Your task to perform on an android device: stop showing notifications on the lock screen Image 0: 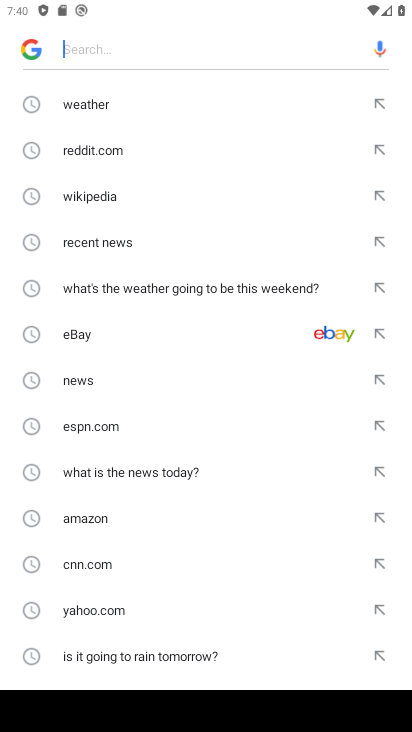
Step 0: press back button
Your task to perform on an android device: stop showing notifications on the lock screen Image 1: 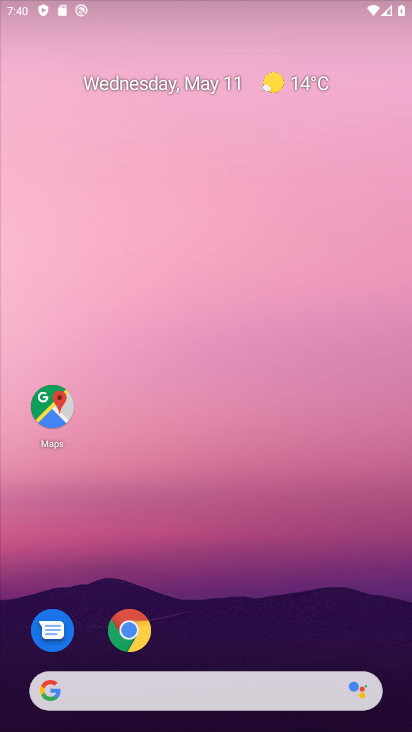
Step 1: drag from (298, 660) to (212, 78)
Your task to perform on an android device: stop showing notifications on the lock screen Image 2: 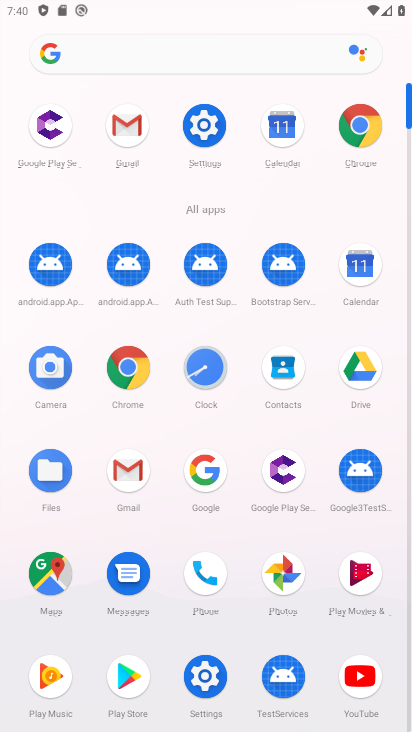
Step 2: click (211, 123)
Your task to perform on an android device: stop showing notifications on the lock screen Image 3: 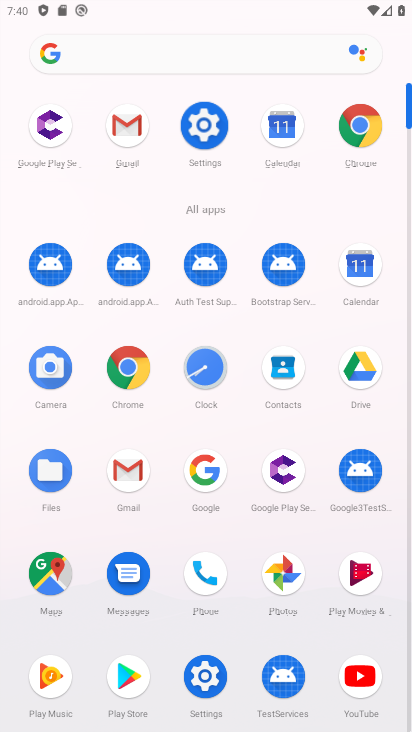
Step 3: click (211, 123)
Your task to perform on an android device: stop showing notifications on the lock screen Image 4: 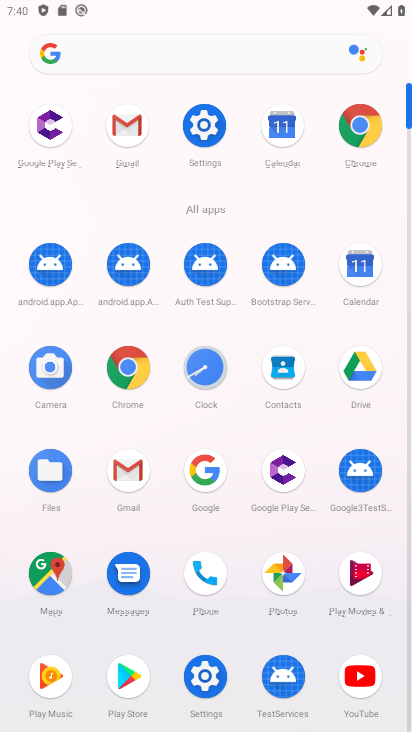
Step 4: click (199, 132)
Your task to perform on an android device: stop showing notifications on the lock screen Image 5: 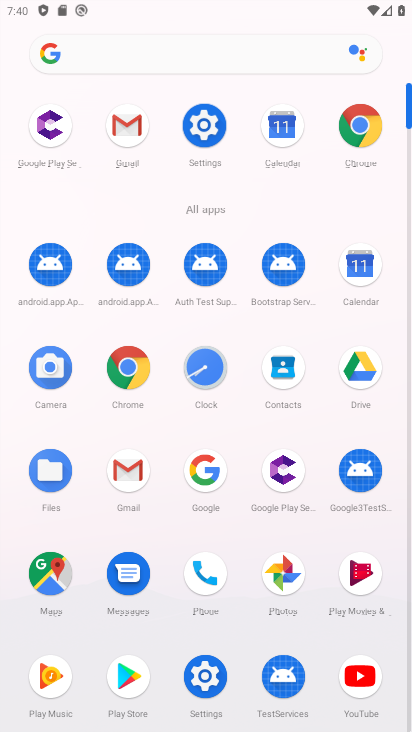
Step 5: click (199, 132)
Your task to perform on an android device: stop showing notifications on the lock screen Image 6: 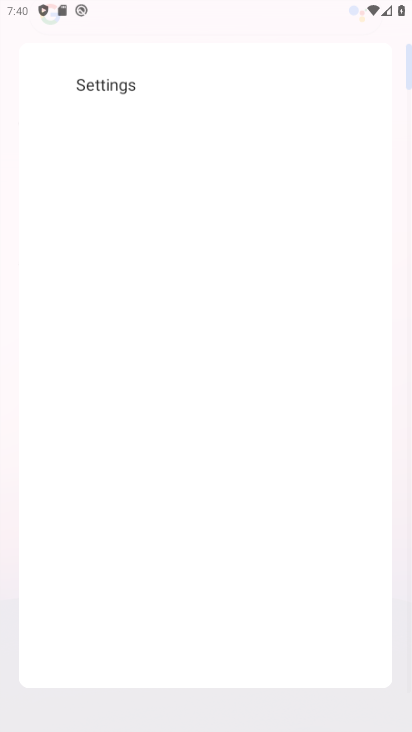
Step 6: click (198, 131)
Your task to perform on an android device: stop showing notifications on the lock screen Image 7: 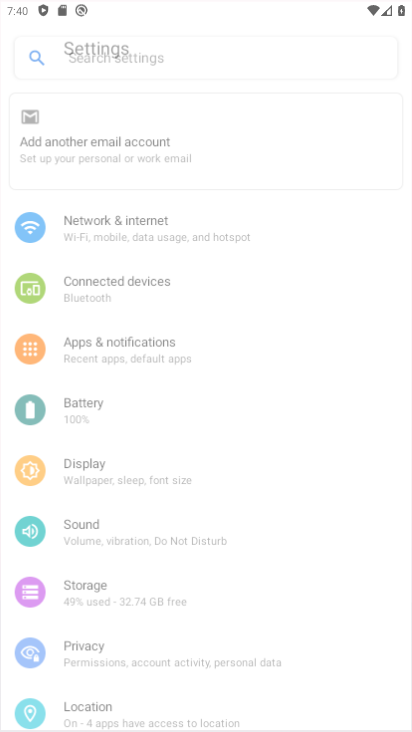
Step 7: click (198, 131)
Your task to perform on an android device: stop showing notifications on the lock screen Image 8: 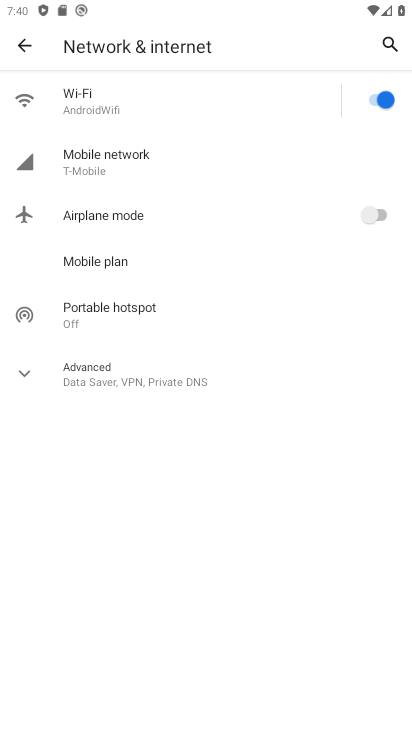
Step 8: click (15, 44)
Your task to perform on an android device: stop showing notifications on the lock screen Image 9: 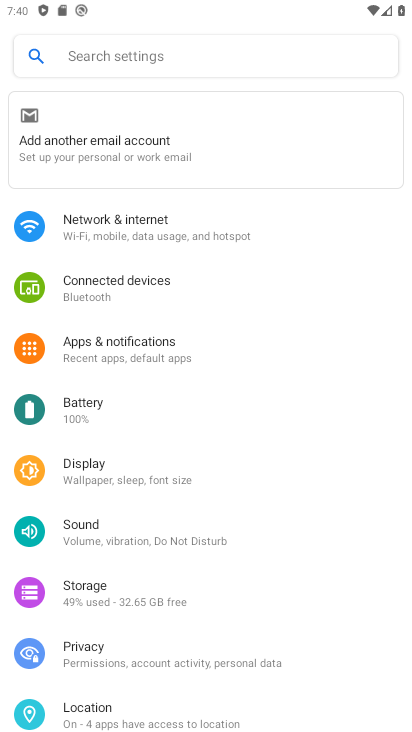
Step 9: click (124, 332)
Your task to perform on an android device: stop showing notifications on the lock screen Image 10: 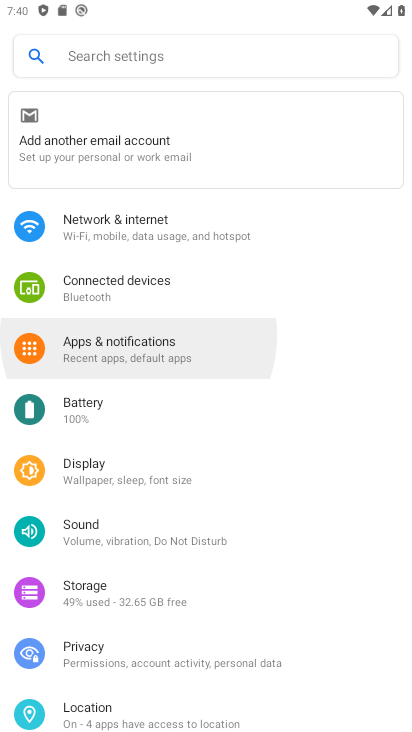
Step 10: click (125, 336)
Your task to perform on an android device: stop showing notifications on the lock screen Image 11: 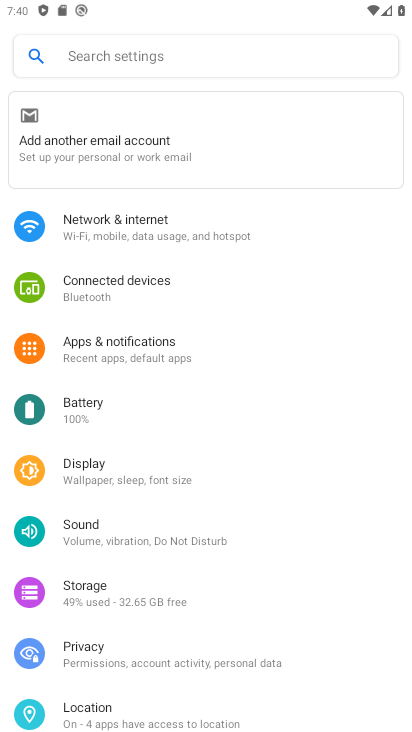
Step 11: click (135, 357)
Your task to perform on an android device: stop showing notifications on the lock screen Image 12: 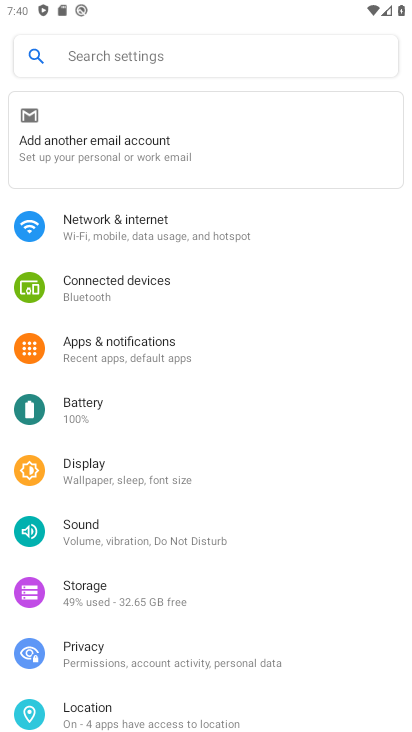
Step 12: click (135, 359)
Your task to perform on an android device: stop showing notifications on the lock screen Image 13: 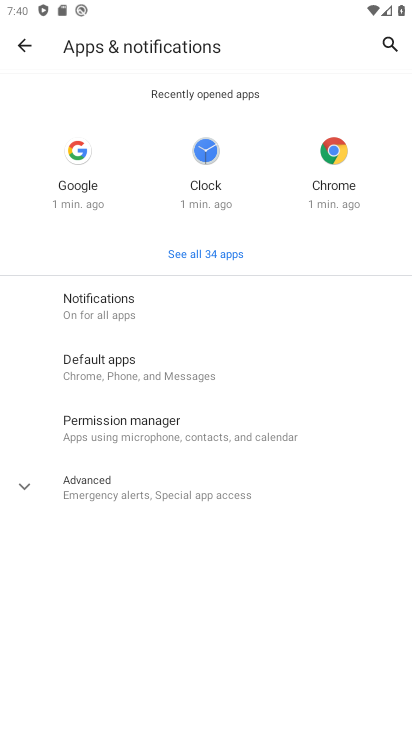
Step 13: click (98, 302)
Your task to perform on an android device: stop showing notifications on the lock screen Image 14: 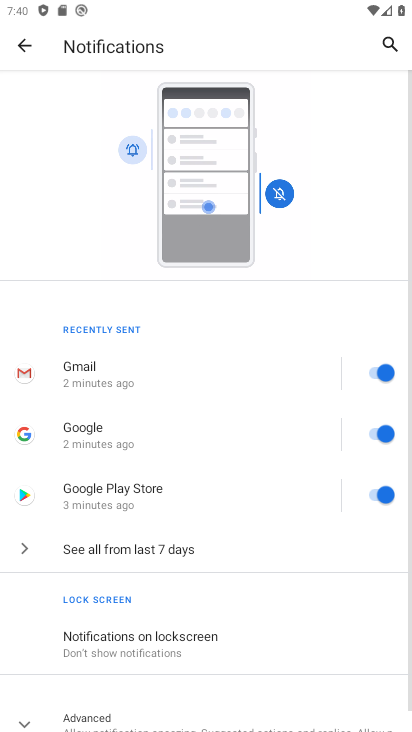
Step 14: drag from (305, 620) to (339, 256)
Your task to perform on an android device: stop showing notifications on the lock screen Image 15: 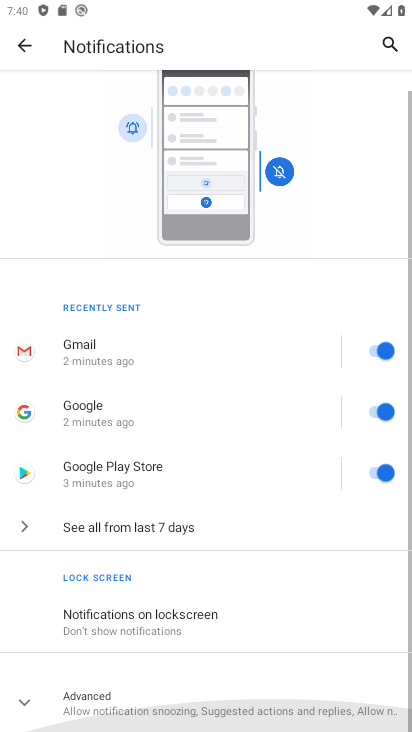
Step 15: drag from (336, 531) to (317, 115)
Your task to perform on an android device: stop showing notifications on the lock screen Image 16: 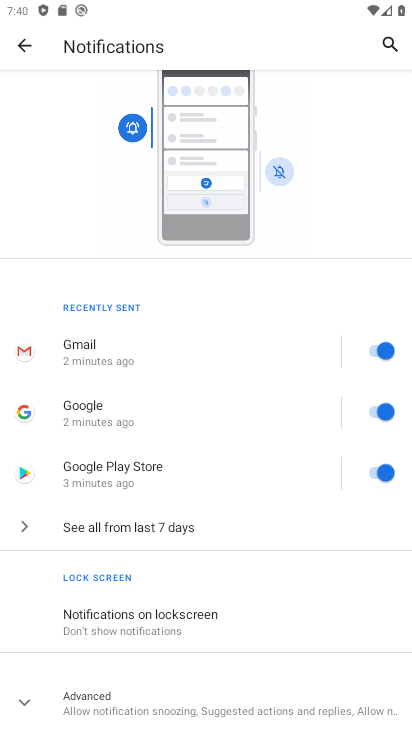
Step 16: click (104, 617)
Your task to perform on an android device: stop showing notifications on the lock screen Image 17: 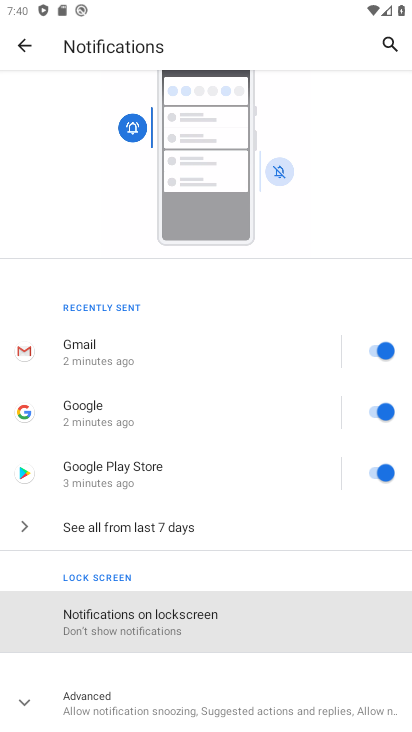
Step 17: click (104, 617)
Your task to perform on an android device: stop showing notifications on the lock screen Image 18: 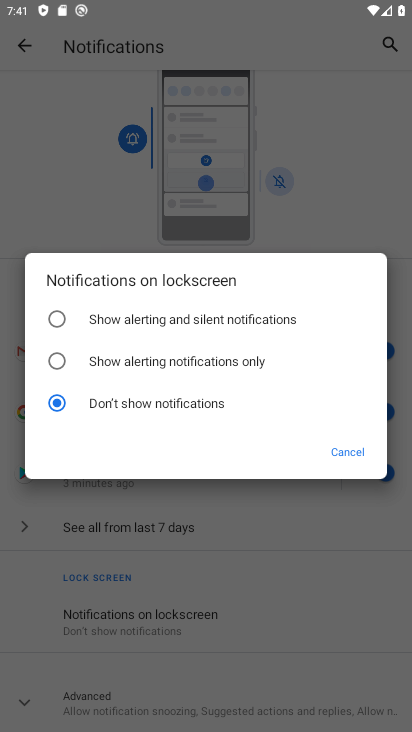
Step 18: click (354, 452)
Your task to perform on an android device: stop showing notifications on the lock screen Image 19: 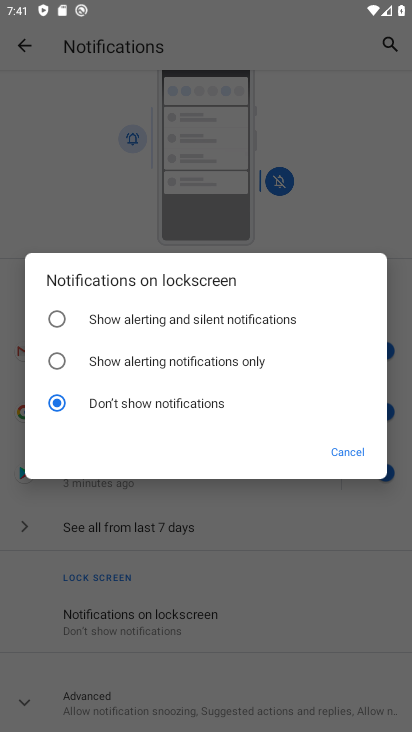
Step 19: task complete